Your task to perform on an android device: check android version Image 0: 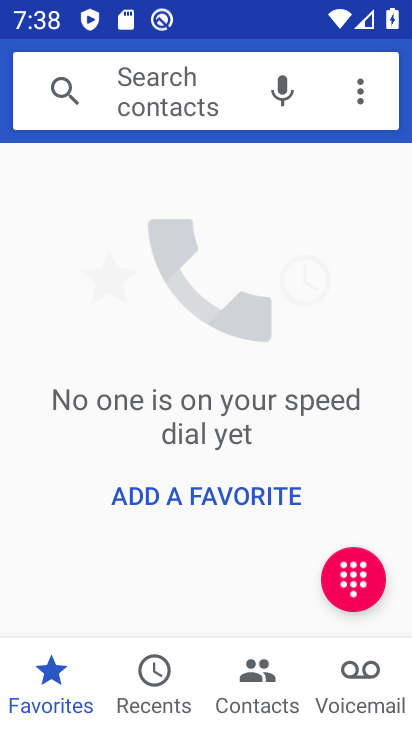
Step 0: press home button
Your task to perform on an android device: check android version Image 1: 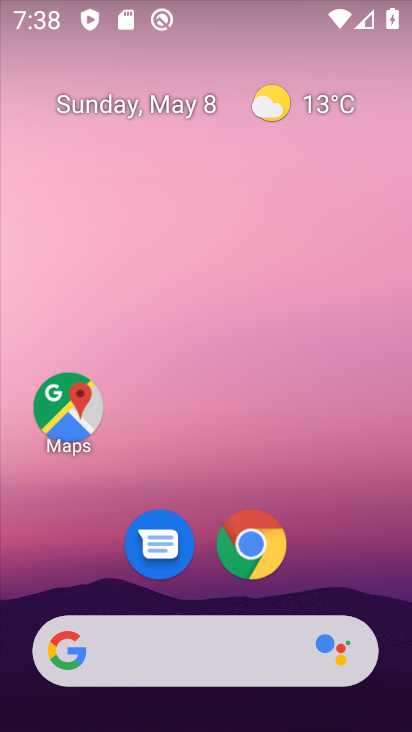
Step 1: drag from (326, 540) to (178, 5)
Your task to perform on an android device: check android version Image 2: 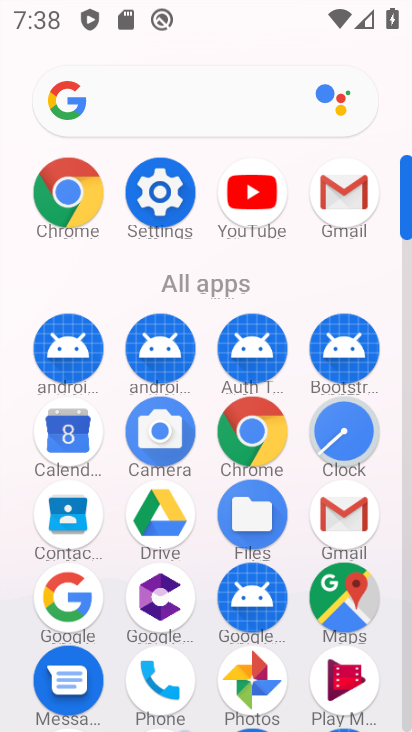
Step 2: click (163, 189)
Your task to perform on an android device: check android version Image 3: 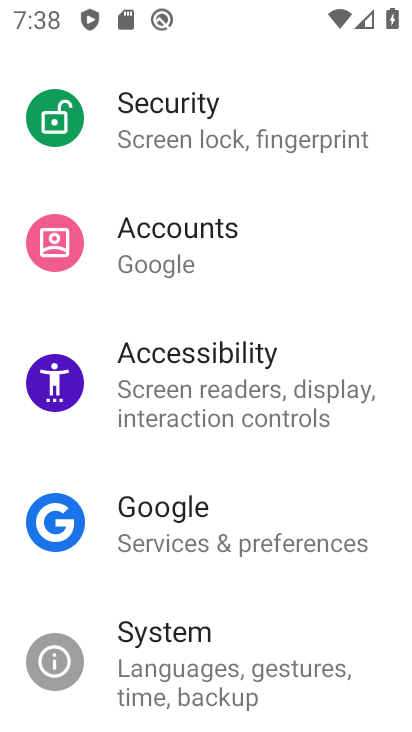
Step 3: drag from (246, 587) to (236, 165)
Your task to perform on an android device: check android version Image 4: 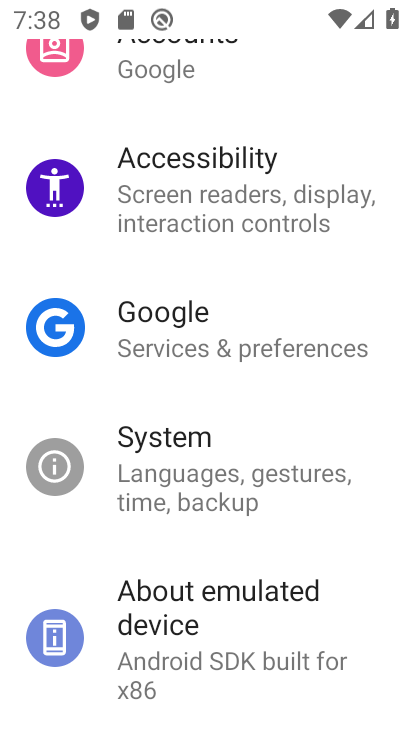
Step 4: click (165, 613)
Your task to perform on an android device: check android version Image 5: 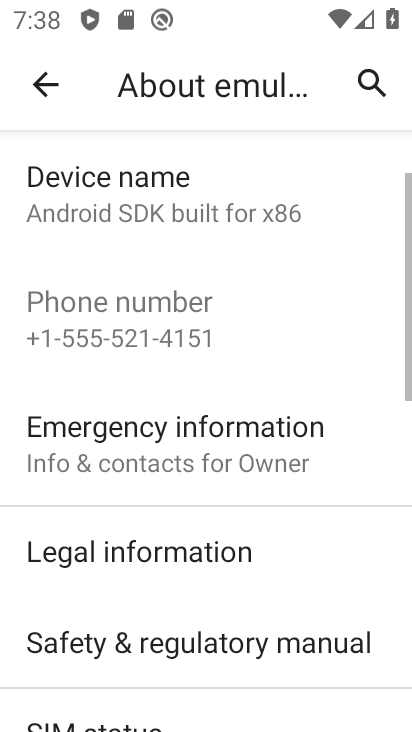
Step 5: task complete